Your task to perform on an android device: turn on location history Image 0: 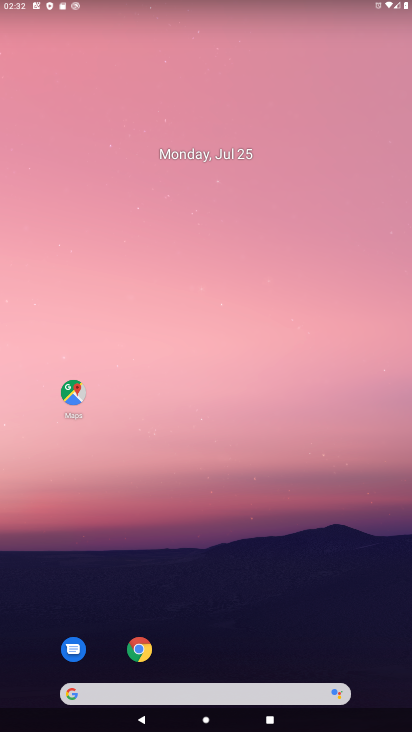
Step 0: click (75, 394)
Your task to perform on an android device: turn on location history Image 1: 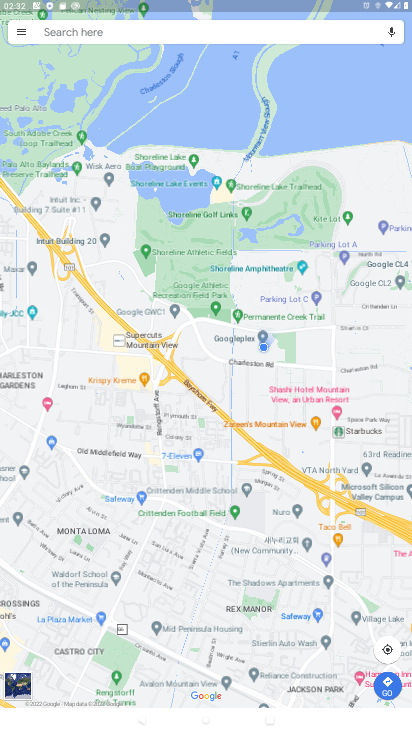
Step 1: click (19, 31)
Your task to perform on an android device: turn on location history Image 2: 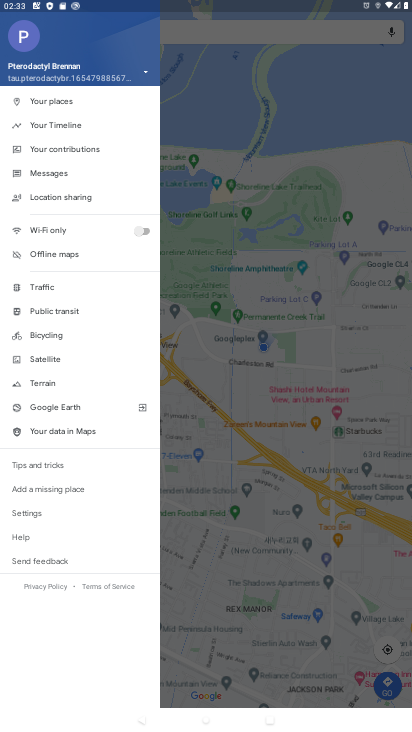
Step 2: click (27, 513)
Your task to perform on an android device: turn on location history Image 3: 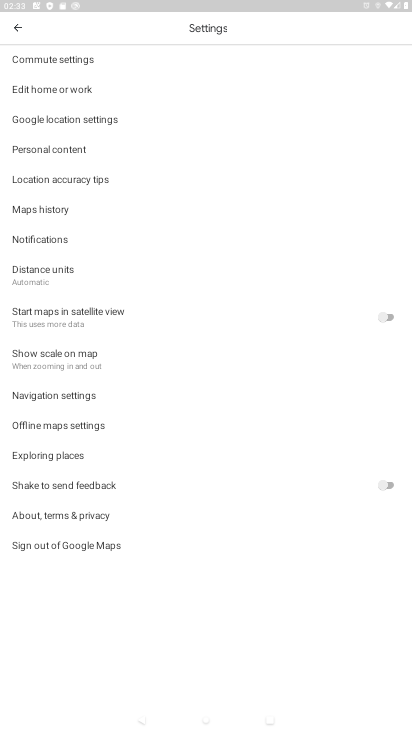
Step 3: click (54, 149)
Your task to perform on an android device: turn on location history Image 4: 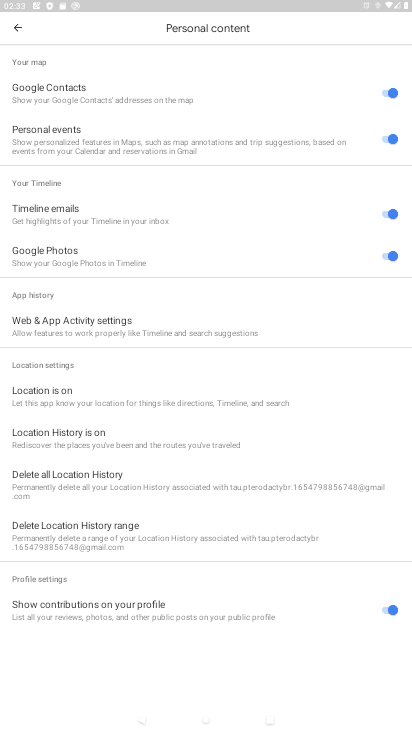
Step 4: task complete